Your task to perform on an android device: move a message to another label in the gmail app Image 0: 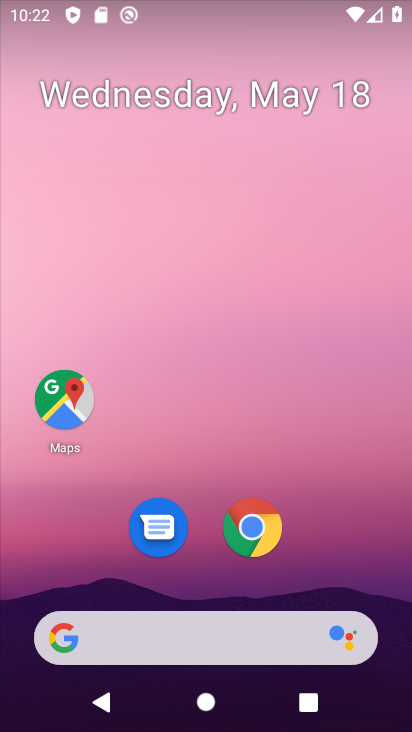
Step 0: drag from (392, 578) to (279, 23)
Your task to perform on an android device: move a message to another label in the gmail app Image 1: 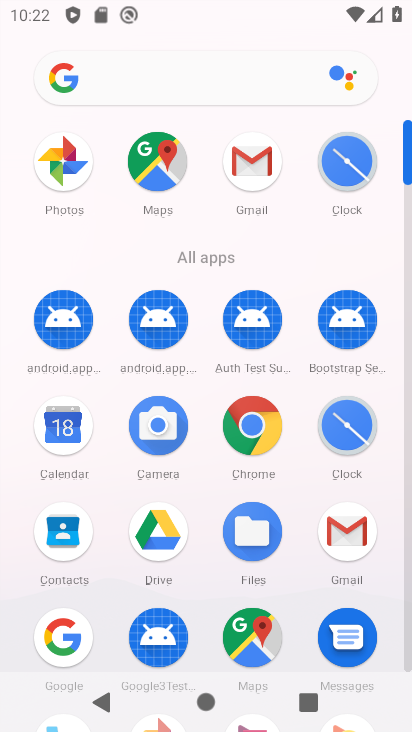
Step 1: click (264, 156)
Your task to perform on an android device: move a message to another label in the gmail app Image 2: 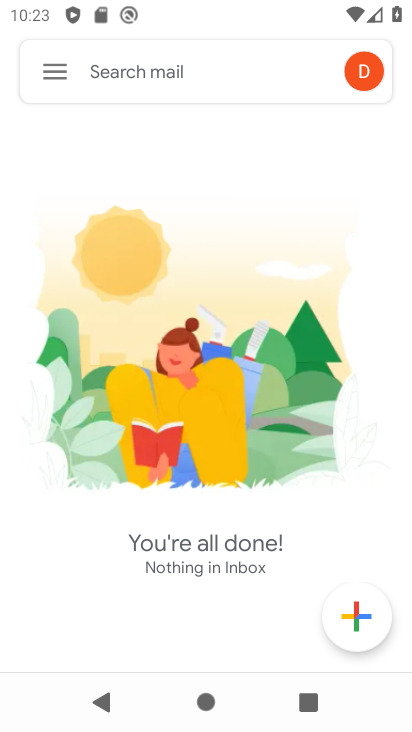
Step 2: click (43, 63)
Your task to perform on an android device: move a message to another label in the gmail app Image 3: 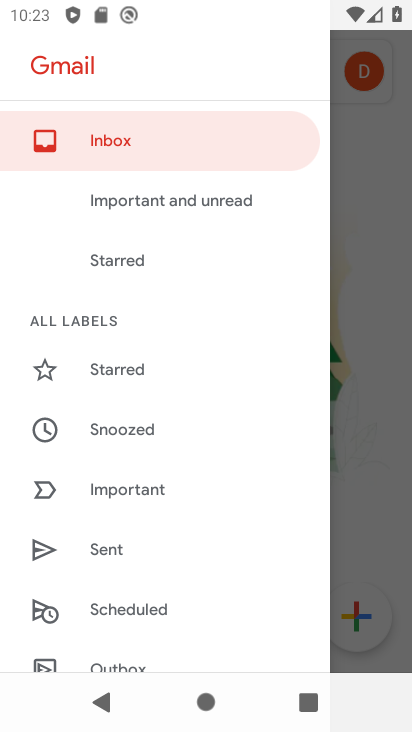
Step 3: drag from (219, 636) to (284, 73)
Your task to perform on an android device: move a message to another label in the gmail app Image 4: 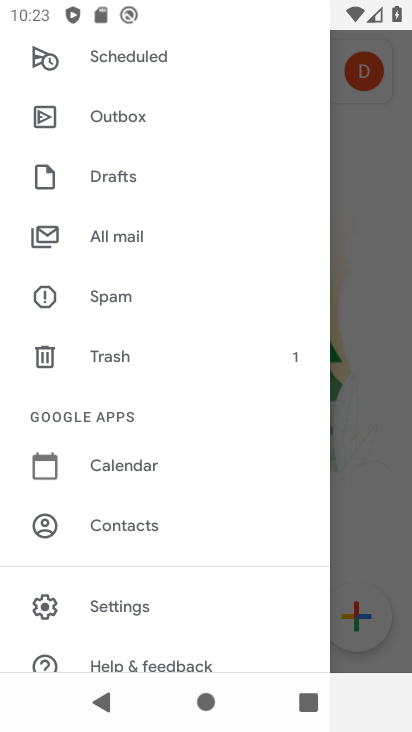
Step 4: click (196, 601)
Your task to perform on an android device: move a message to another label in the gmail app Image 5: 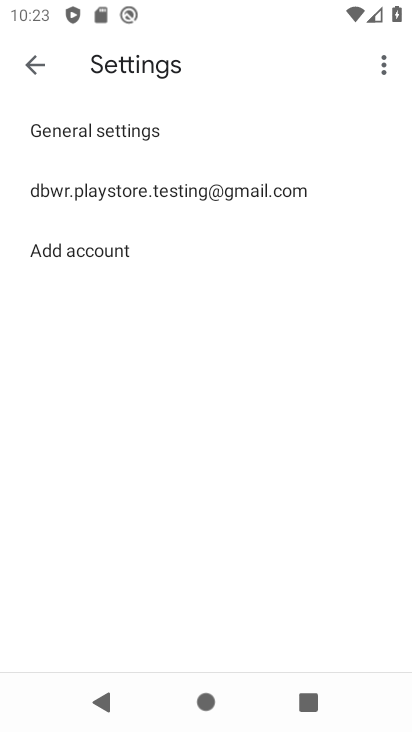
Step 5: click (41, 60)
Your task to perform on an android device: move a message to another label in the gmail app Image 6: 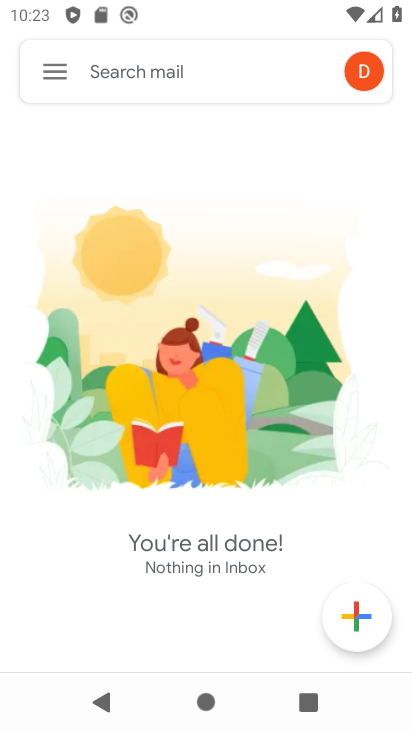
Step 6: task complete